Your task to perform on an android device: set default search engine in the chrome app Image 0: 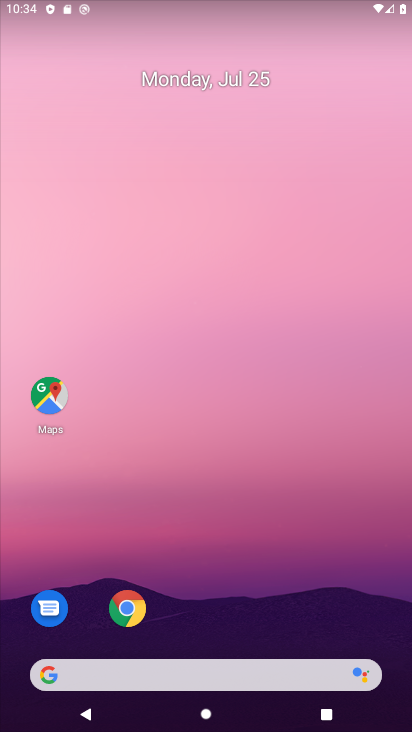
Step 0: drag from (304, 554) to (291, 255)
Your task to perform on an android device: set default search engine in the chrome app Image 1: 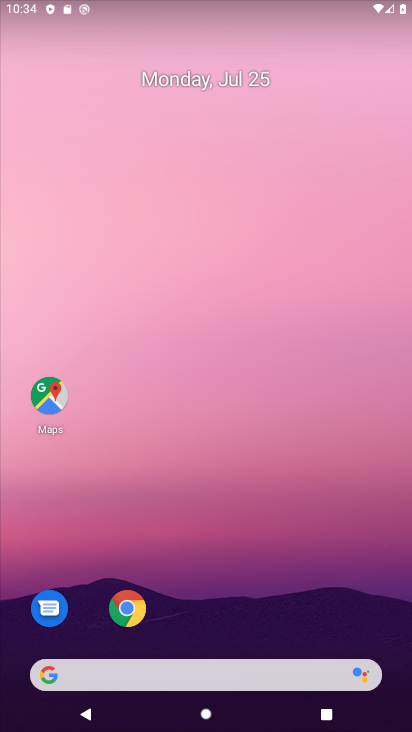
Step 1: drag from (204, 620) to (209, 231)
Your task to perform on an android device: set default search engine in the chrome app Image 2: 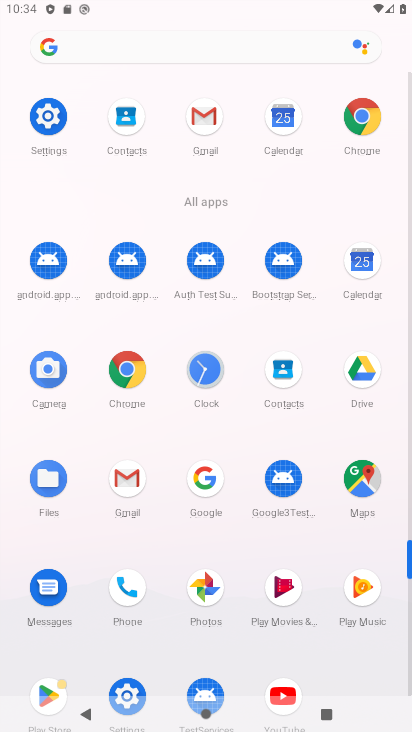
Step 2: click (372, 111)
Your task to perform on an android device: set default search engine in the chrome app Image 3: 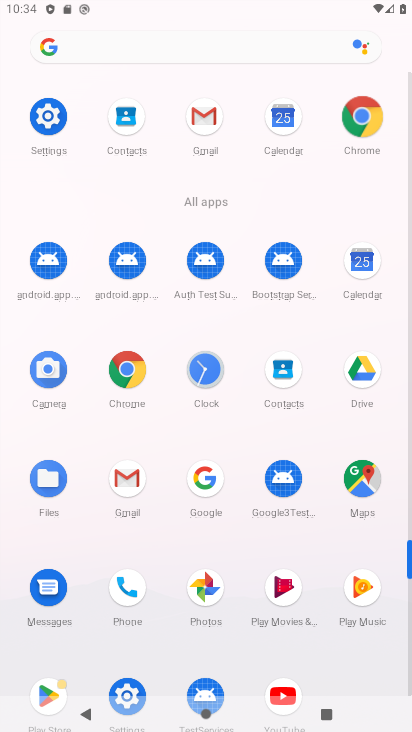
Step 3: click (371, 113)
Your task to perform on an android device: set default search engine in the chrome app Image 4: 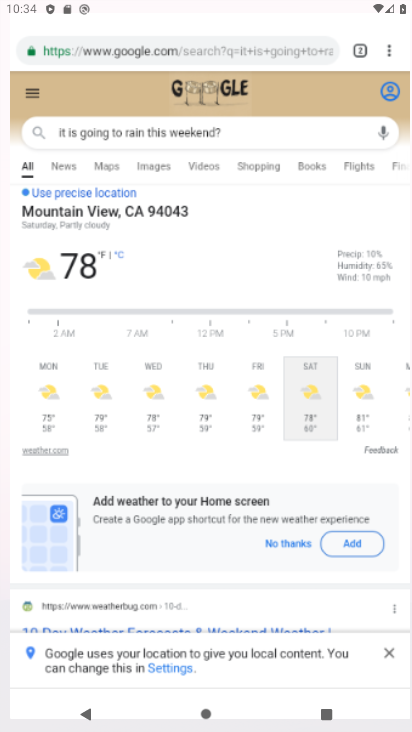
Step 4: click (370, 114)
Your task to perform on an android device: set default search engine in the chrome app Image 5: 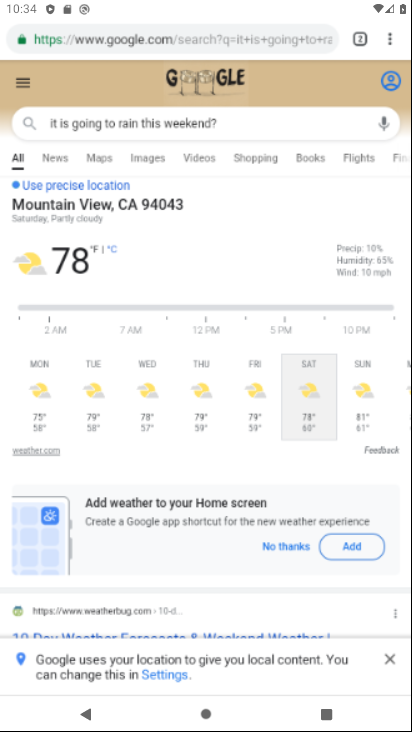
Step 5: click (370, 116)
Your task to perform on an android device: set default search engine in the chrome app Image 6: 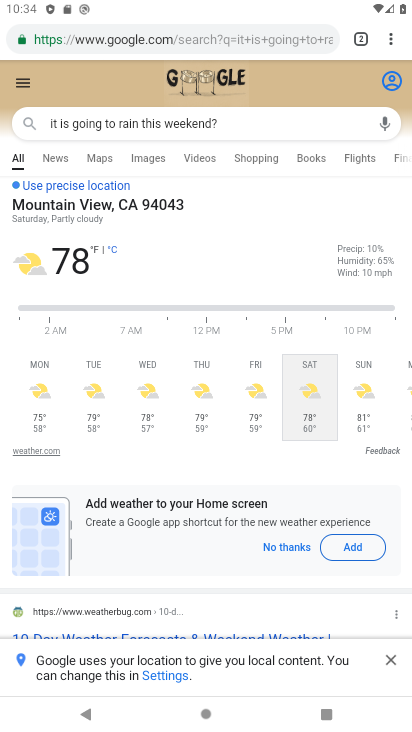
Step 6: click (395, 42)
Your task to perform on an android device: set default search engine in the chrome app Image 7: 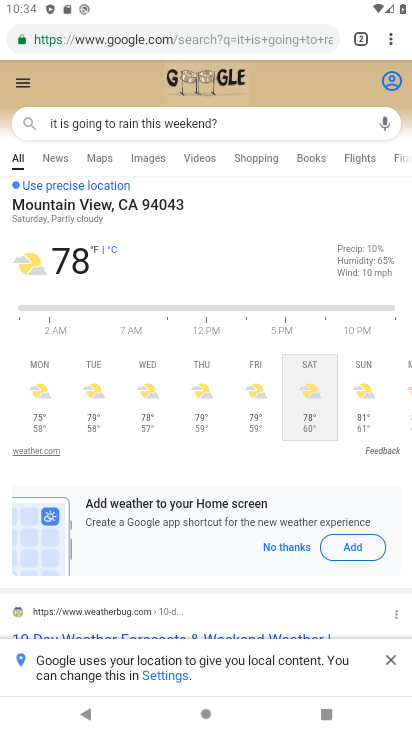
Step 7: click (394, 39)
Your task to perform on an android device: set default search engine in the chrome app Image 8: 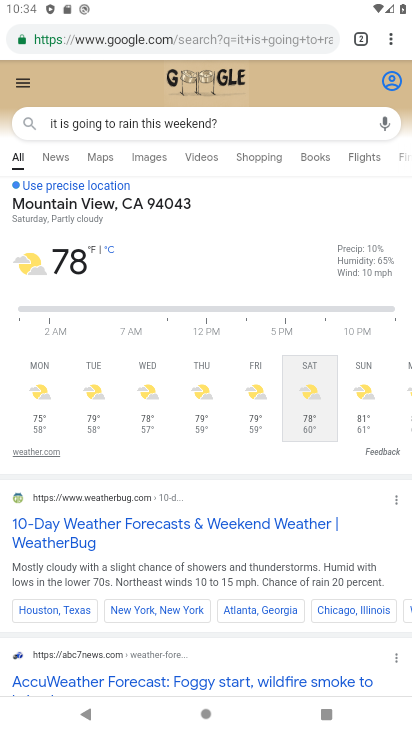
Step 8: click (385, 35)
Your task to perform on an android device: set default search engine in the chrome app Image 9: 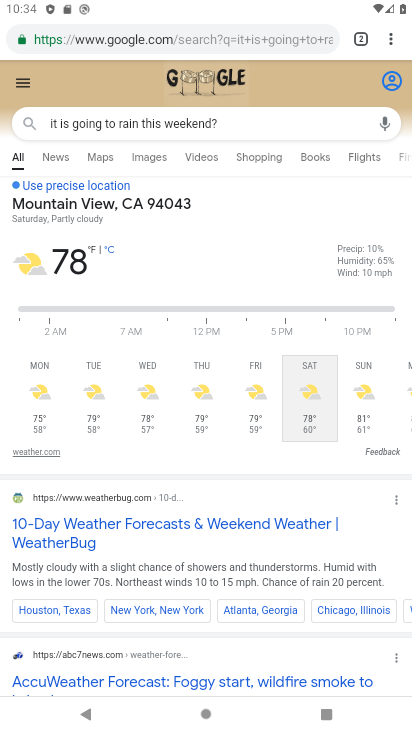
Step 9: click (371, 58)
Your task to perform on an android device: set default search engine in the chrome app Image 10: 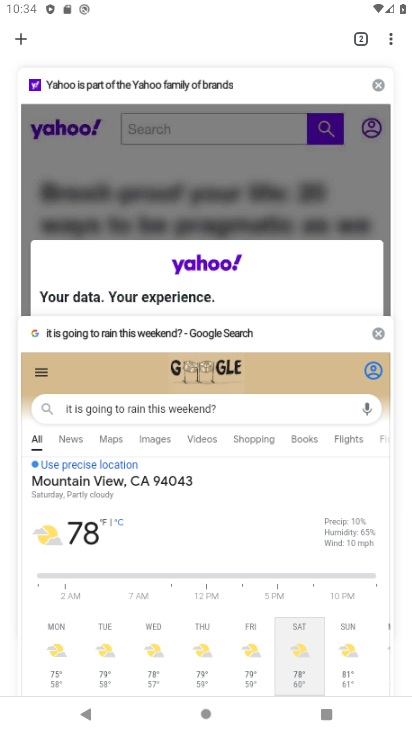
Step 10: drag from (394, 38) to (164, 28)
Your task to perform on an android device: set default search engine in the chrome app Image 11: 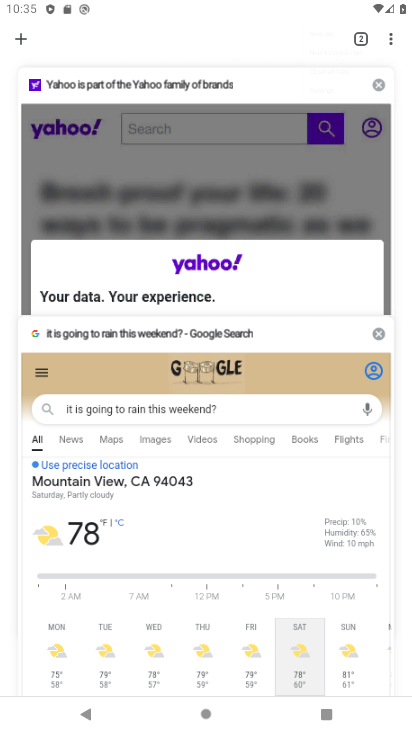
Step 11: click (158, 21)
Your task to perform on an android device: set default search engine in the chrome app Image 12: 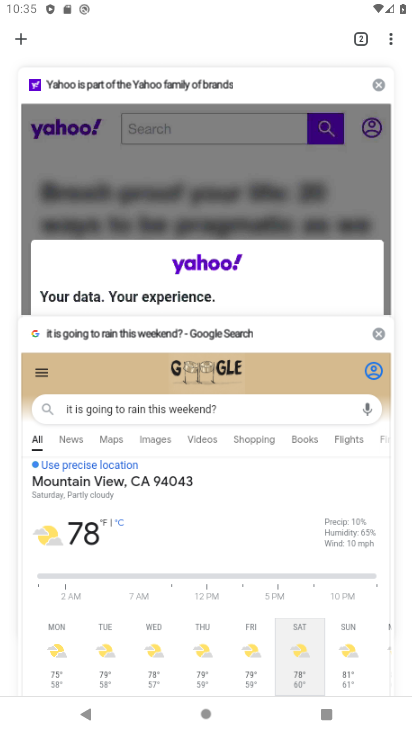
Step 12: click (158, 21)
Your task to perform on an android device: set default search engine in the chrome app Image 13: 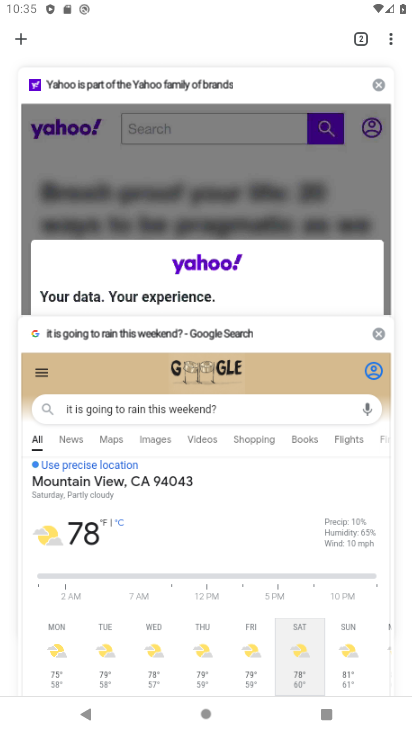
Step 13: press back button
Your task to perform on an android device: set default search engine in the chrome app Image 14: 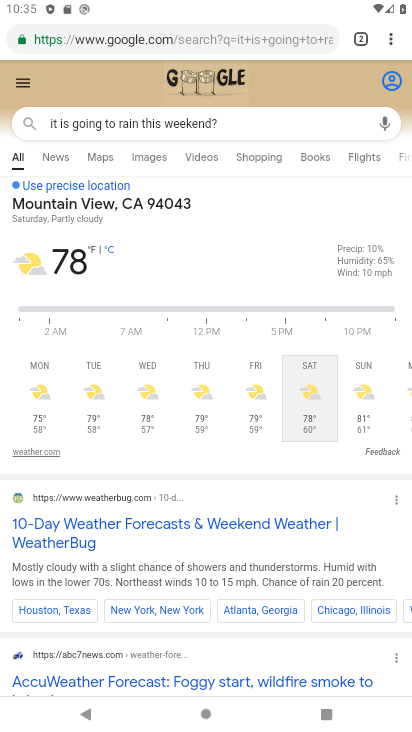
Step 14: drag from (334, 243) to (193, 382)
Your task to perform on an android device: set default search engine in the chrome app Image 15: 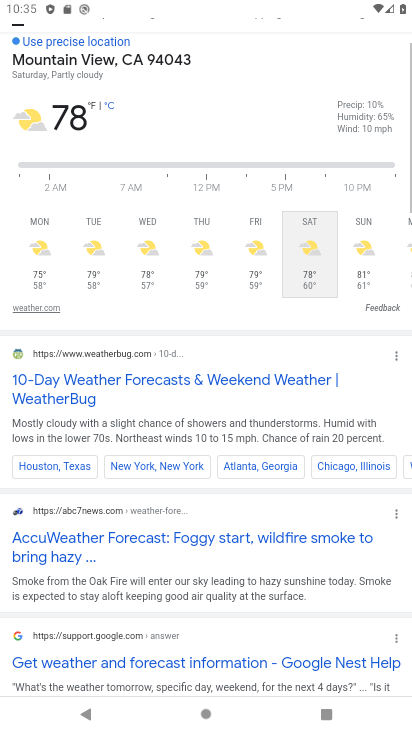
Step 15: drag from (209, 115) to (260, 471)
Your task to perform on an android device: set default search engine in the chrome app Image 16: 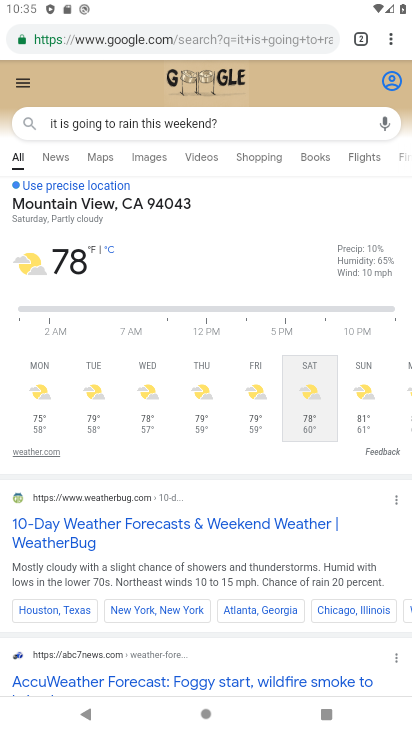
Step 16: click (392, 43)
Your task to perform on an android device: set default search engine in the chrome app Image 17: 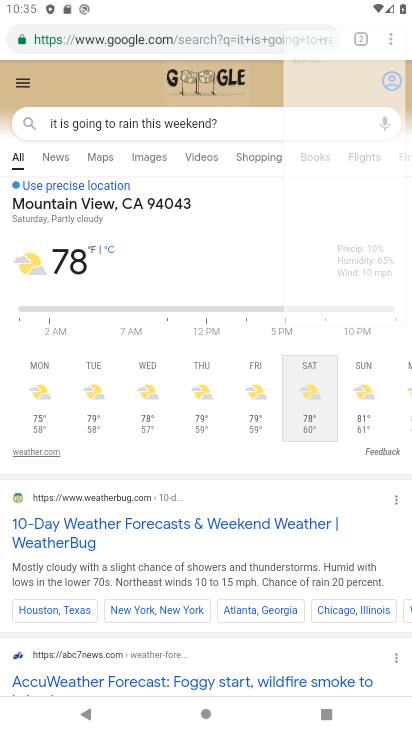
Step 17: drag from (392, 43) to (255, 432)
Your task to perform on an android device: set default search engine in the chrome app Image 18: 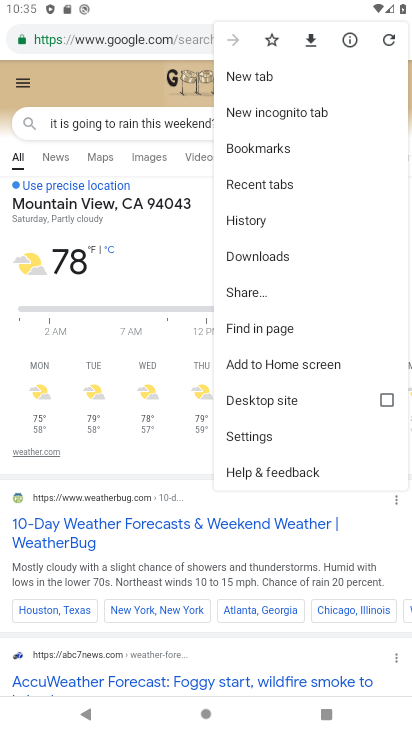
Step 18: click (255, 432)
Your task to perform on an android device: set default search engine in the chrome app Image 19: 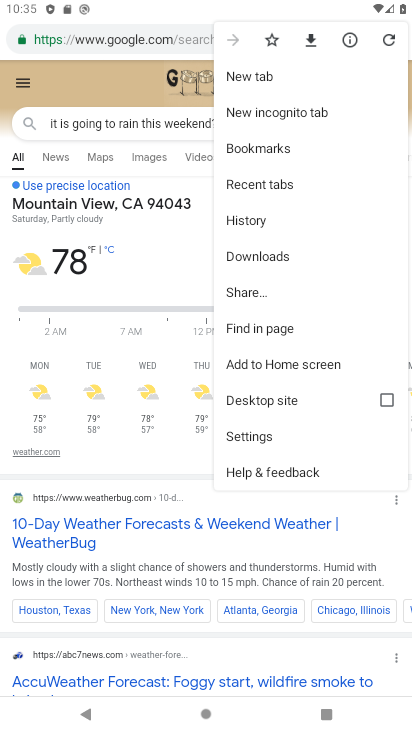
Step 19: click (257, 430)
Your task to perform on an android device: set default search engine in the chrome app Image 20: 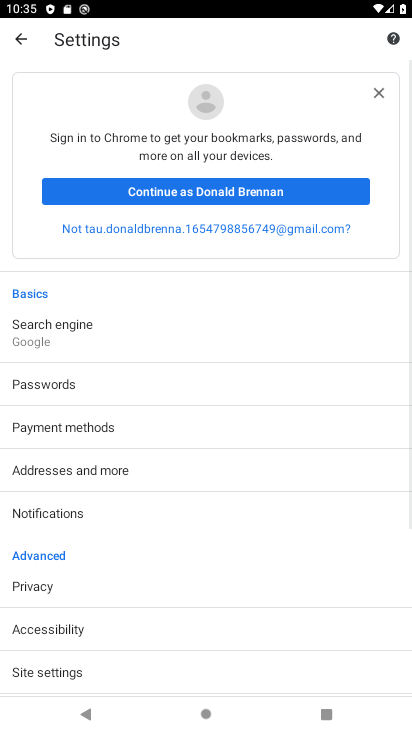
Step 20: click (30, 332)
Your task to perform on an android device: set default search engine in the chrome app Image 21: 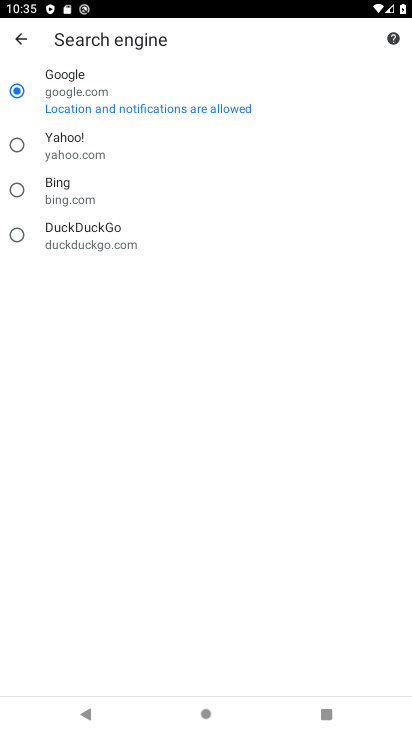
Step 21: click (31, 329)
Your task to perform on an android device: set default search engine in the chrome app Image 22: 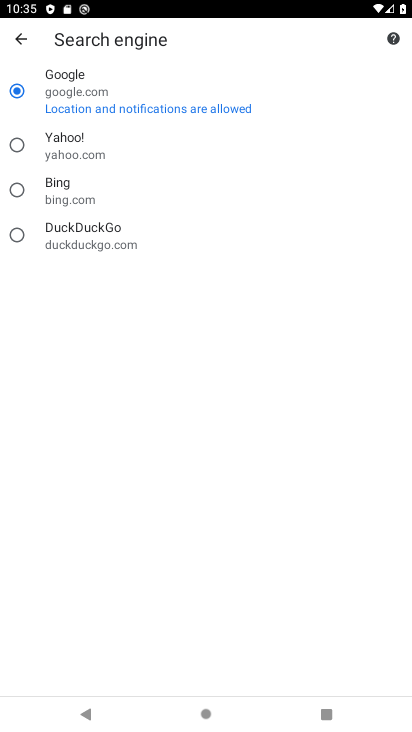
Step 22: click (36, 332)
Your task to perform on an android device: set default search engine in the chrome app Image 23: 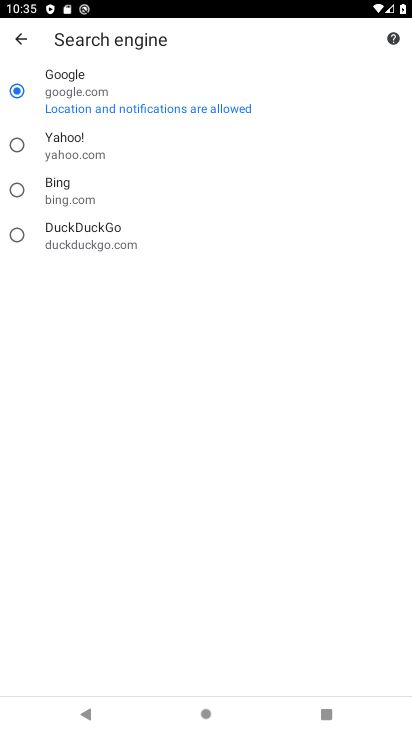
Step 23: click (30, 155)
Your task to perform on an android device: set default search engine in the chrome app Image 24: 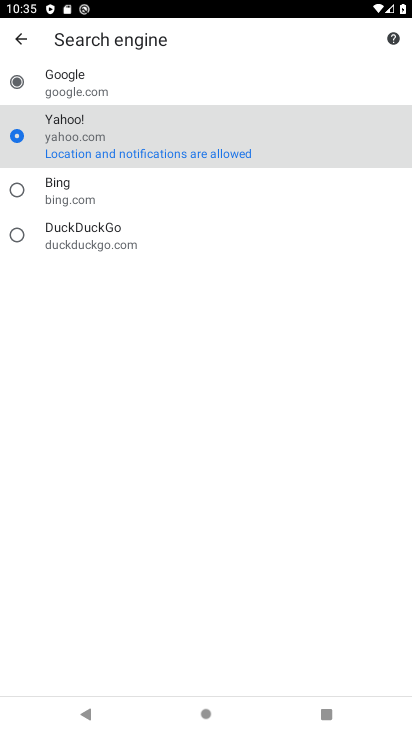
Step 24: click (33, 152)
Your task to perform on an android device: set default search engine in the chrome app Image 25: 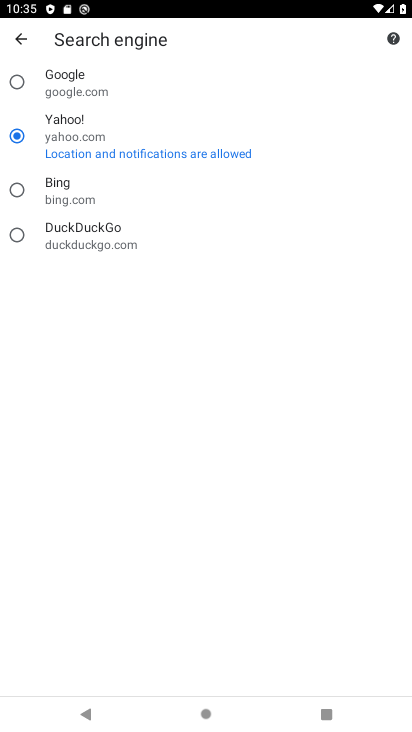
Step 25: task complete